Your task to perform on an android device: What's on my calendar today? Image 0: 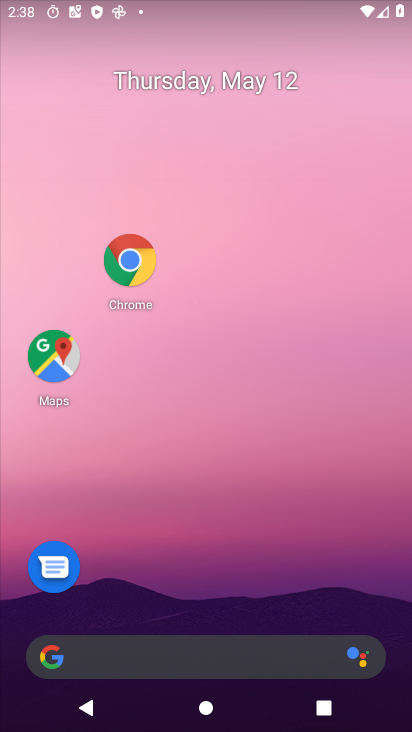
Step 0: drag from (225, 611) to (208, 272)
Your task to perform on an android device: What's on my calendar today? Image 1: 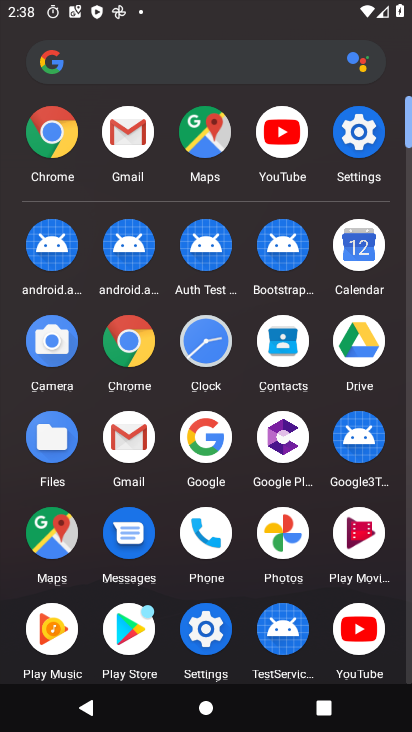
Step 1: click (369, 249)
Your task to perform on an android device: What's on my calendar today? Image 2: 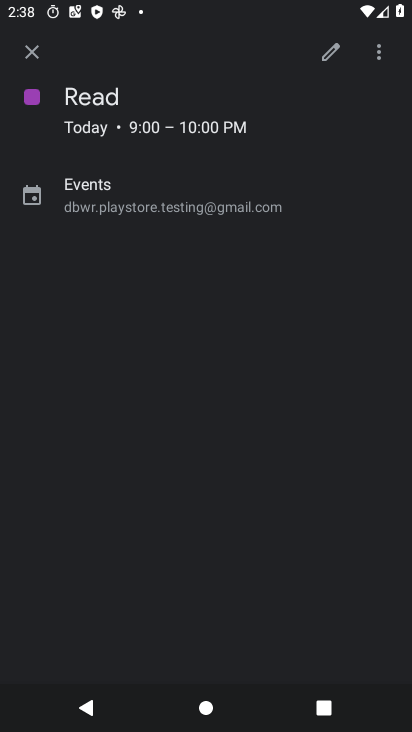
Step 2: task complete